Your task to perform on an android device: turn off priority inbox in the gmail app Image 0: 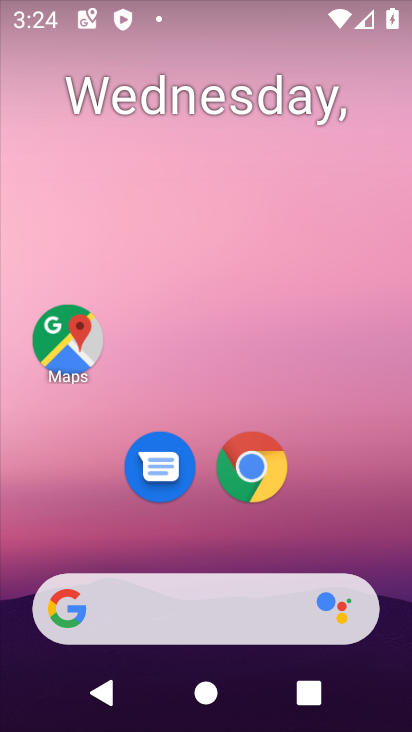
Step 0: drag from (88, 567) to (194, 137)
Your task to perform on an android device: turn off priority inbox in the gmail app Image 1: 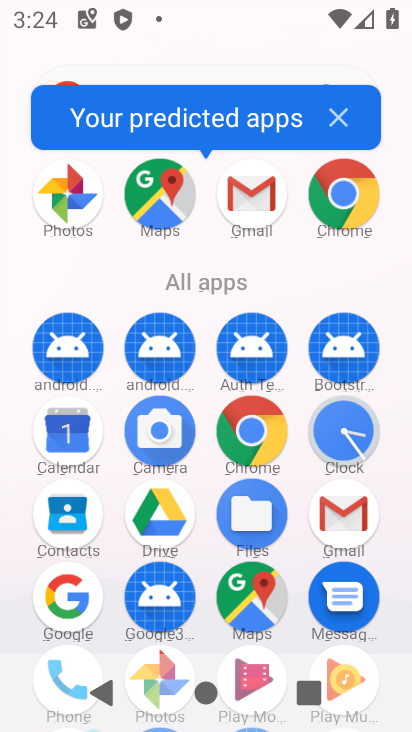
Step 1: click (342, 532)
Your task to perform on an android device: turn off priority inbox in the gmail app Image 2: 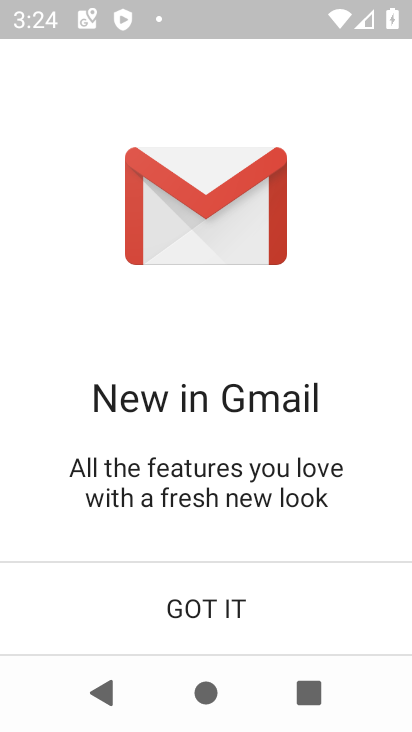
Step 2: click (276, 628)
Your task to perform on an android device: turn off priority inbox in the gmail app Image 3: 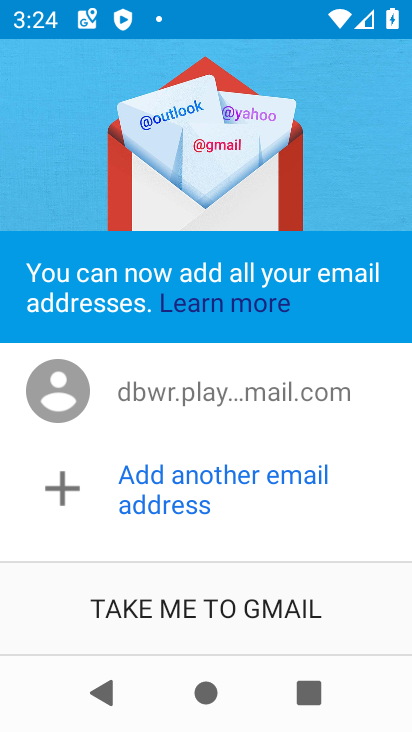
Step 3: click (276, 625)
Your task to perform on an android device: turn off priority inbox in the gmail app Image 4: 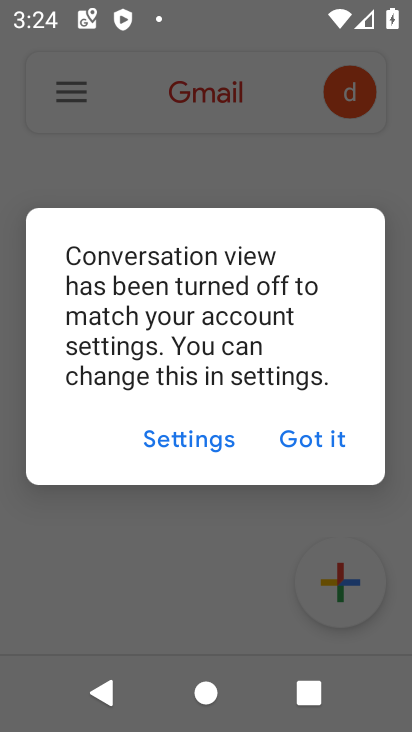
Step 4: click (280, 434)
Your task to perform on an android device: turn off priority inbox in the gmail app Image 5: 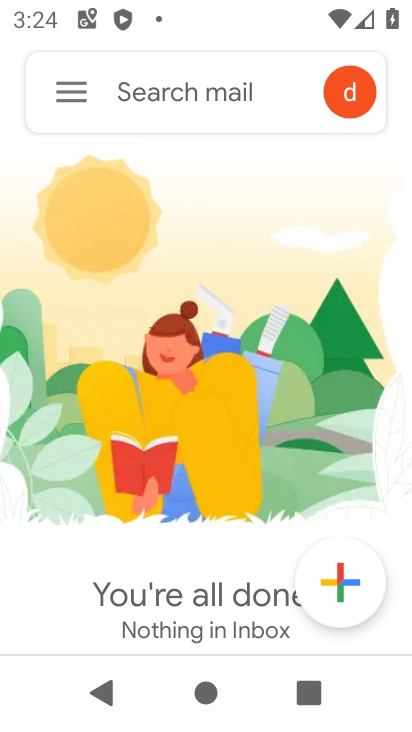
Step 5: click (74, 111)
Your task to perform on an android device: turn off priority inbox in the gmail app Image 6: 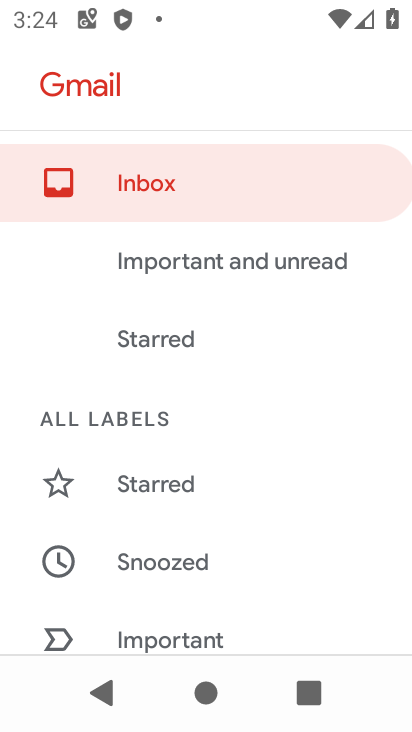
Step 6: drag from (145, 577) to (256, 153)
Your task to perform on an android device: turn off priority inbox in the gmail app Image 7: 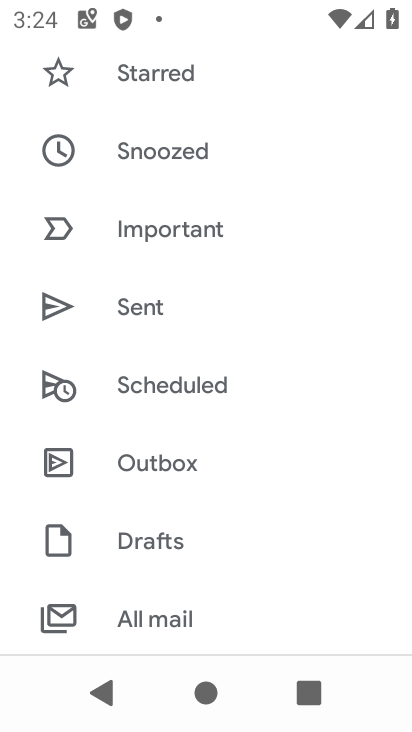
Step 7: drag from (199, 572) to (301, 132)
Your task to perform on an android device: turn off priority inbox in the gmail app Image 8: 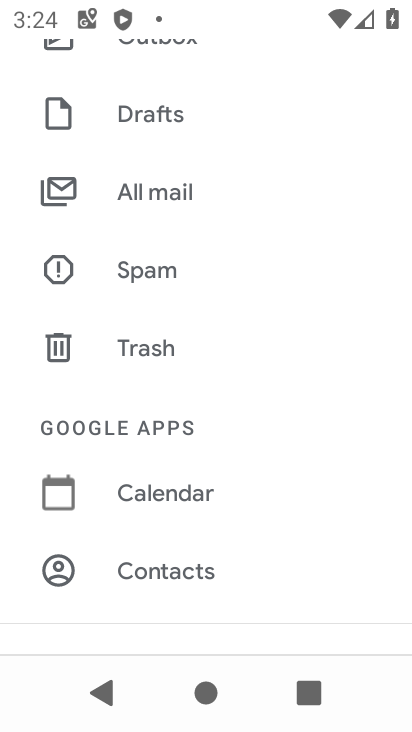
Step 8: drag from (218, 521) to (300, 132)
Your task to perform on an android device: turn off priority inbox in the gmail app Image 9: 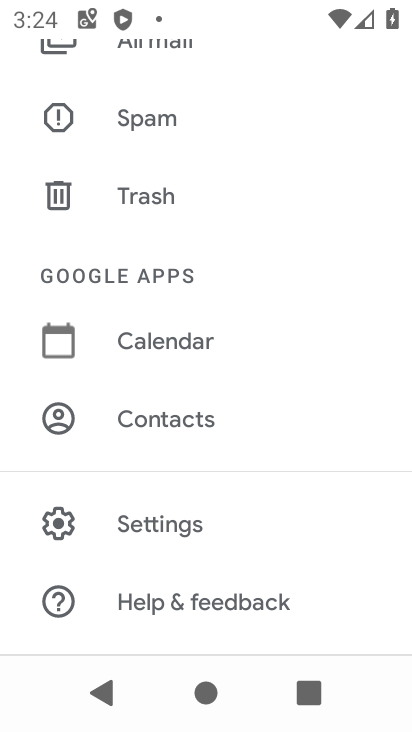
Step 9: click (202, 518)
Your task to perform on an android device: turn off priority inbox in the gmail app Image 10: 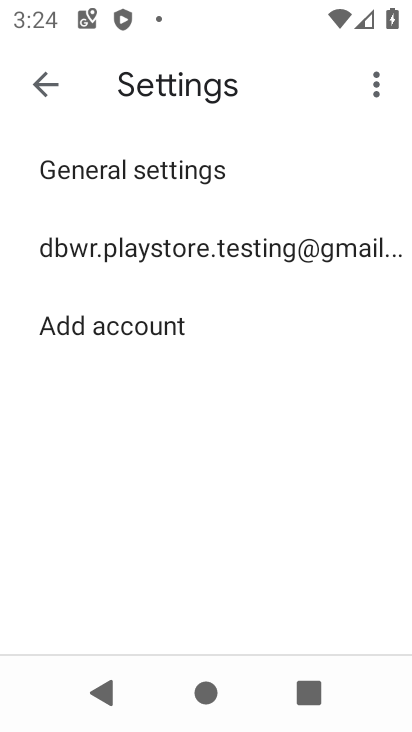
Step 10: click (285, 272)
Your task to perform on an android device: turn off priority inbox in the gmail app Image 11: 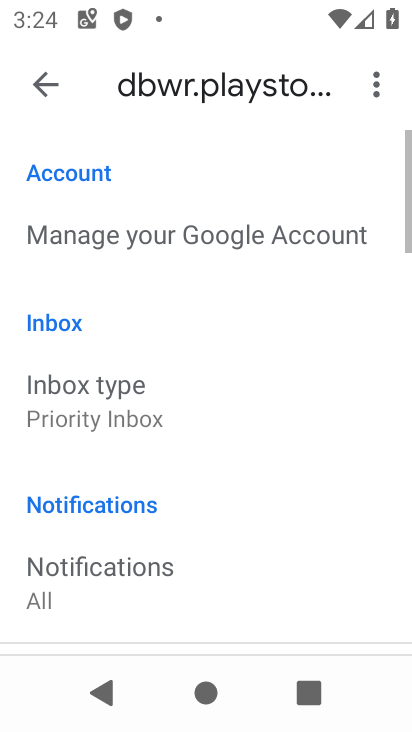
Step 11: drag from (216, 549) to (318, 143)
Your task to perform on an android device: turn off priority inbox in the gmail app Image 12: 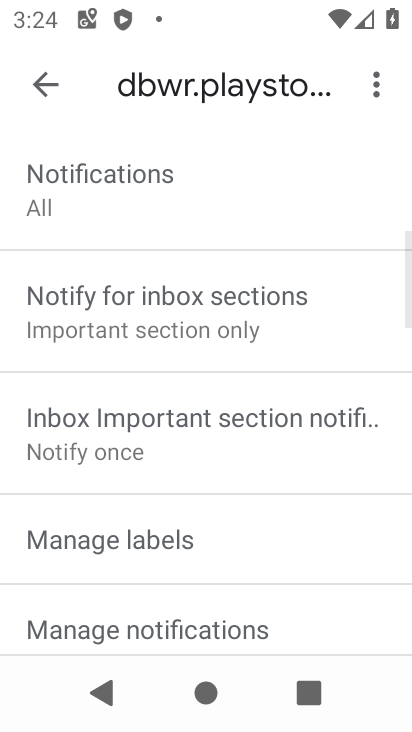
Step 12: drag from (229, 509) to (288, 192)
Your task to perform on an android device: turn off priority inbox in the gmail app Image 13: 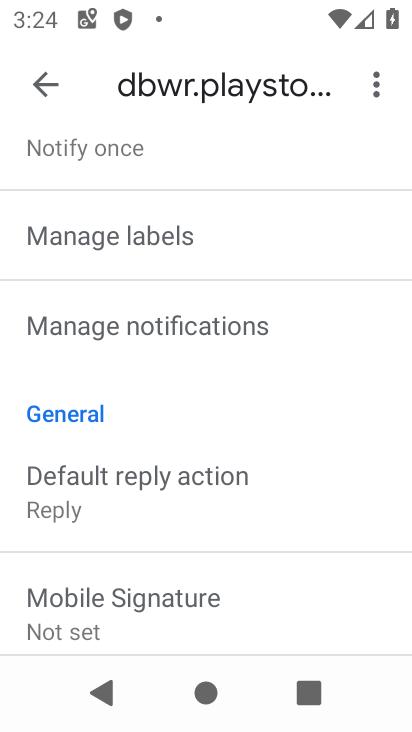
Step 13: drag from (244, 299) to (210, 692)
Your task to perform on an android device: turn off priority inbox in the gmail app Image 14: 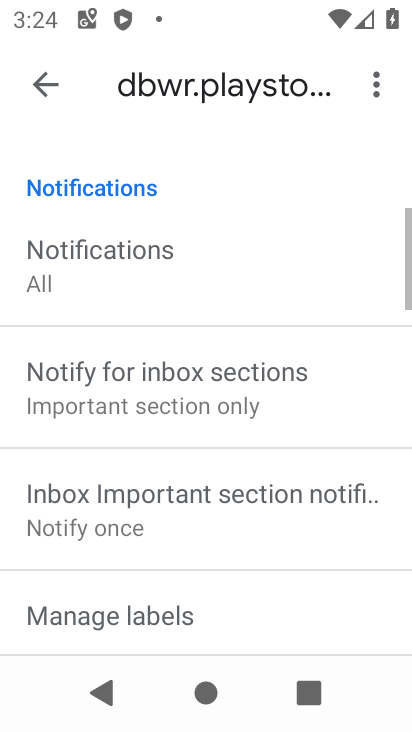
Step 14: drag from (249, 319) to (224, 639)
Your task to perform on an android device: turn off priority inbox in the gmail app Image 15: 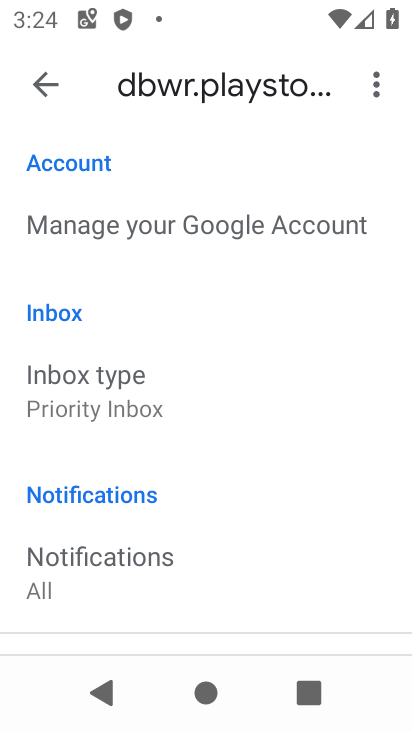
Step 15: click (183, 390)
Your task to perform on an android device: turn off priority inbox in the gmail app Image 16: 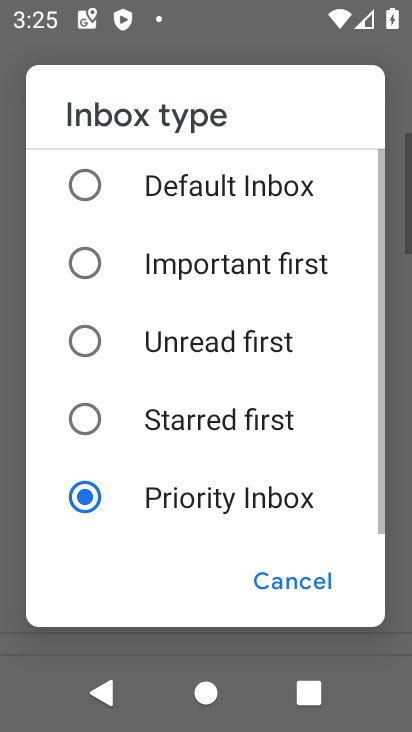
Step 16: click (199, 197)
Your task to perform on an android device: turn off priority inbox in the gmail app Image 17: 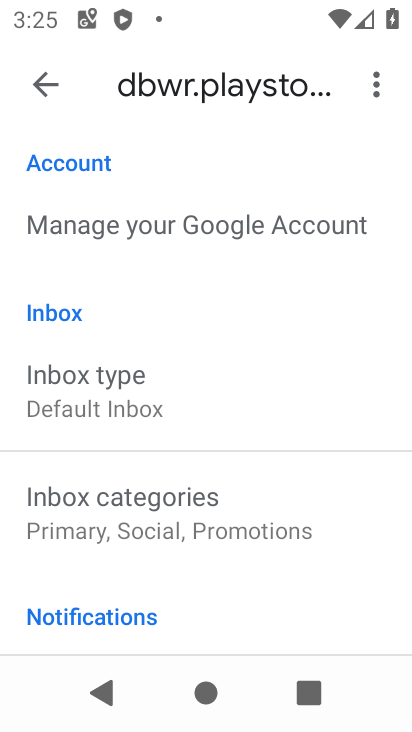
Step 17: task complete